Your task to perform on an android device: check the backup settings in the google photos Image 0: 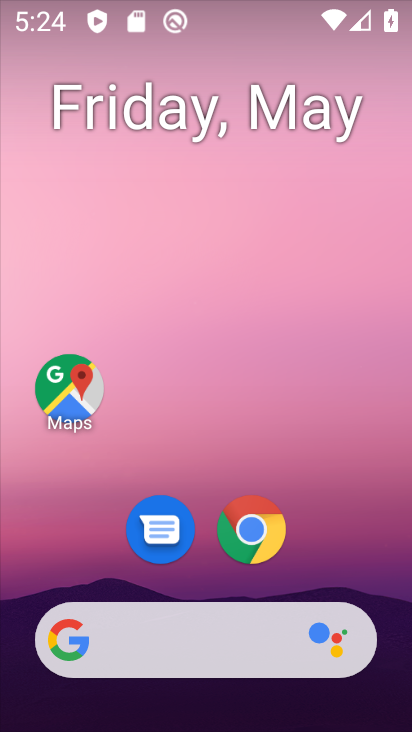
Step 0: drag from (207, 585) to (226, 164)
Your task to perform on an android device: check the backup settings in the google photos Image 1: 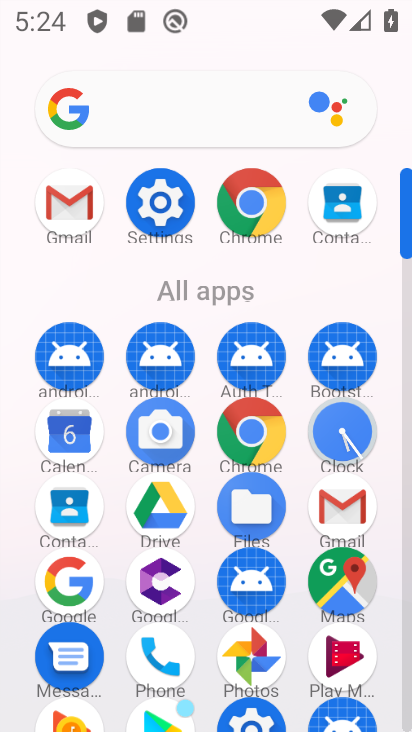
Step 1: click (254, 663)
Your task to perform on an android device: check the backup settings in the google photos Image 2: 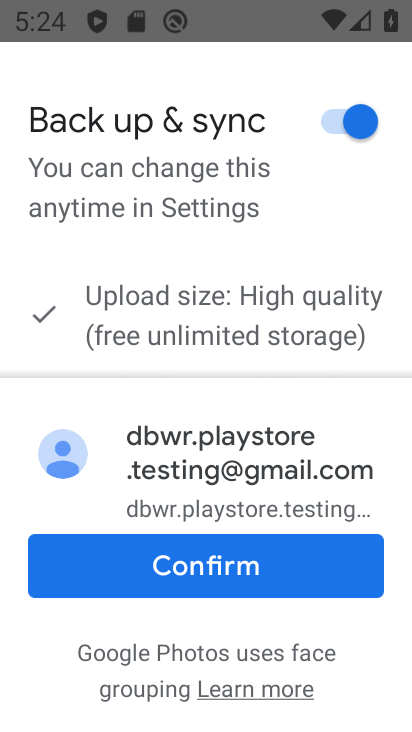
Step 2: click (223, 336)
Your task to perform on an android device: check the backup settings in the google photos Image 3: 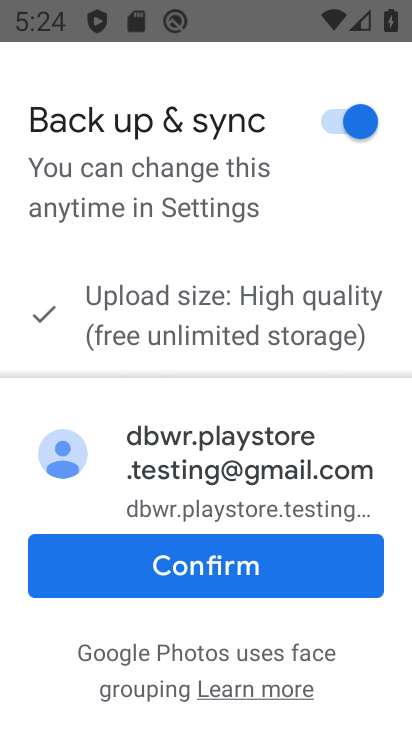
Step 3: click (223, 336)
Your task to perform on an android device: check the backup settings in the google photos Image 4: 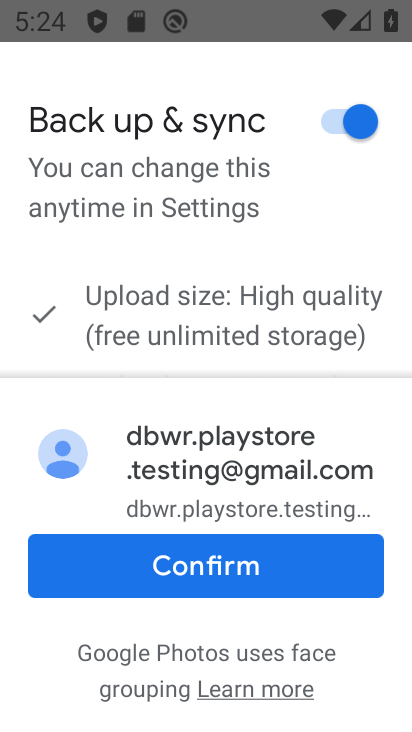
Step 4: click (258, 594)
Your task to perform on an android device: check the backup settings in the google photos Image 5: 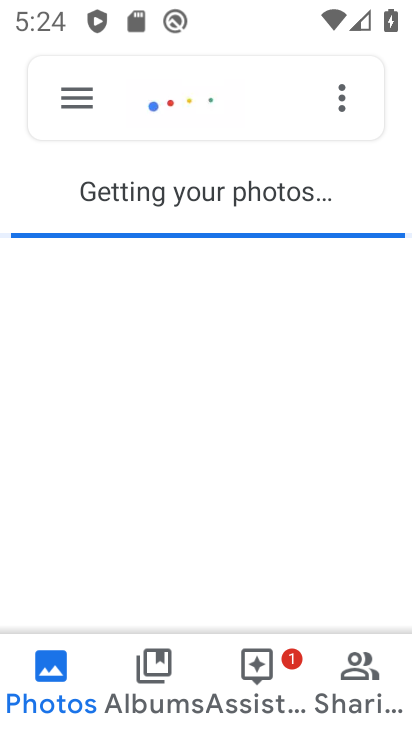
Step 5: click (83, 102)
Your task to perform on an android device: check the backup settings in the google photos Image 6: 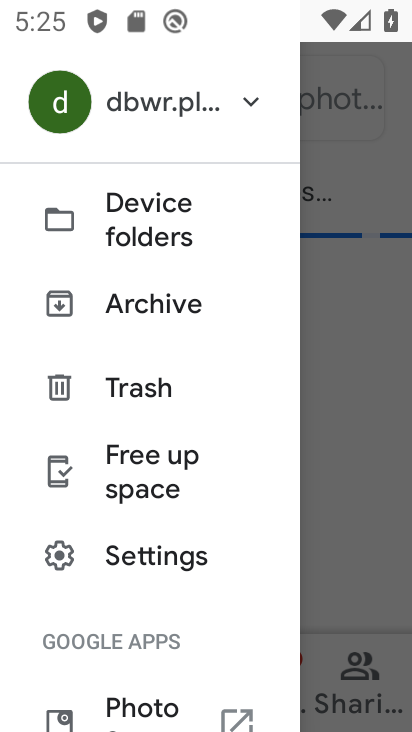
Step 6: click (165, 561)
Your task to perform on an android device: check the backup settings in the google photos Image 7: 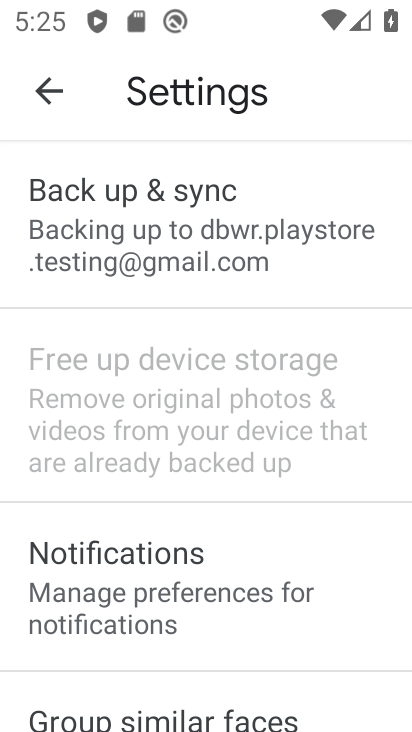
Step 7: click (209, 233)
Your task to perform on an android device: check the backup settings in the google photos Image 8: 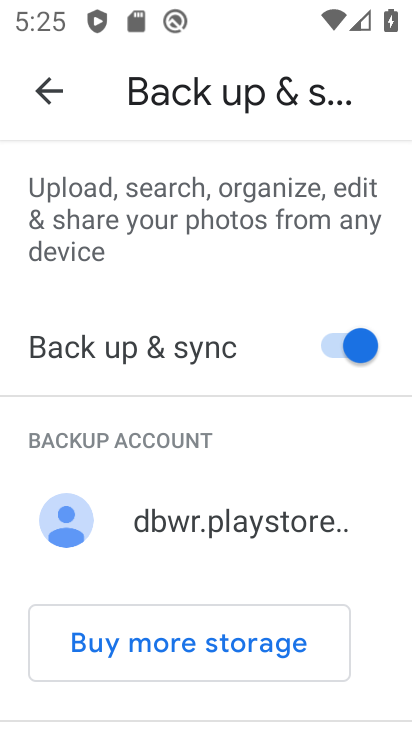
Step 8: task complete